Your task to perform on an android device: turn smart compose on in the gmail app Image 0: 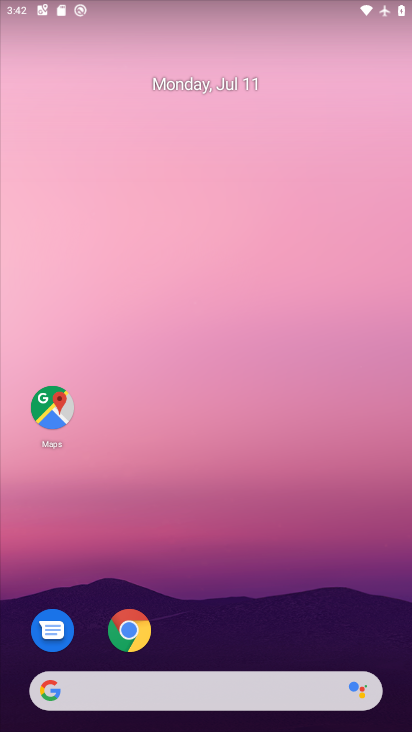
Step 0: drag from (310, 623) to (338, 120)
Your task to perform on an android device: turn smart compose on in the gmail app Image 1: 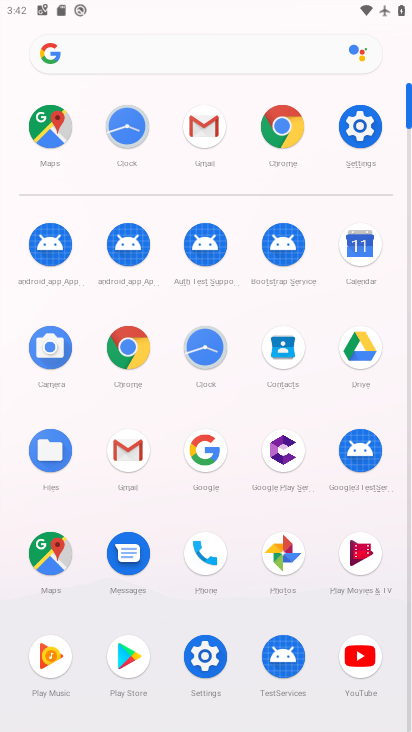
Step 1: click (191, 151)
Your task to perform on an android device: turn smart compose on in the gmail app Image 2: 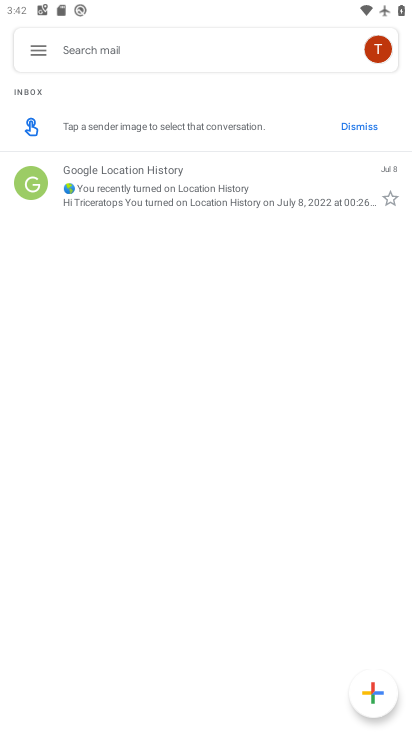
Step 2: click (36, 40)
Your task to perform on an android device: turn smart compose on in the gmail app Image 3: 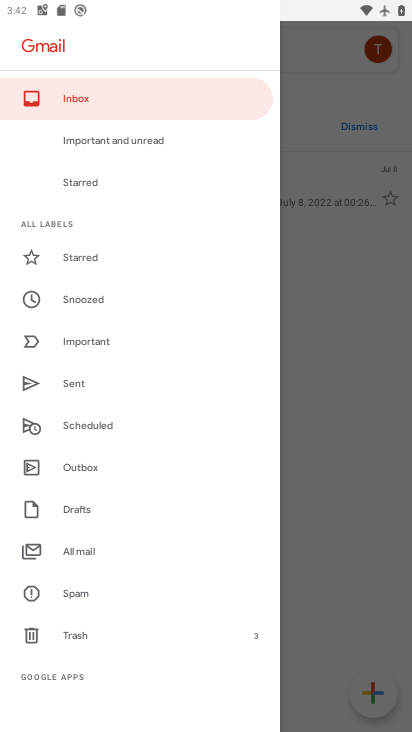
Step 3: drag from (121, 626) to (126, 160)
Your task to perform on an android device: turn smart compose on in the gmail app Image 4: 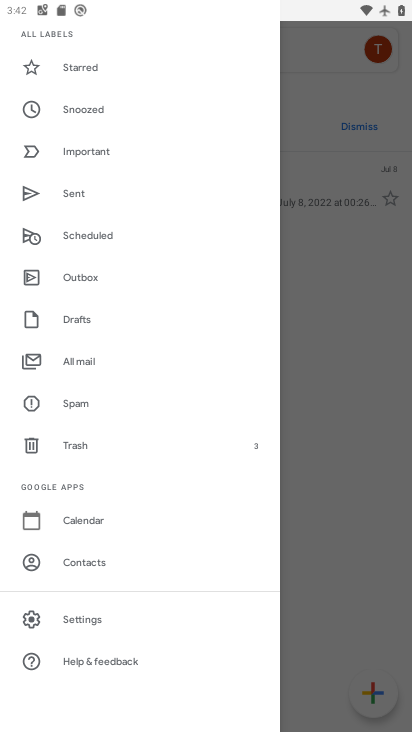
Step 4: click (166, 609)
Your task to perform on an android device: turn smart compose on in the gmail app Image 5: 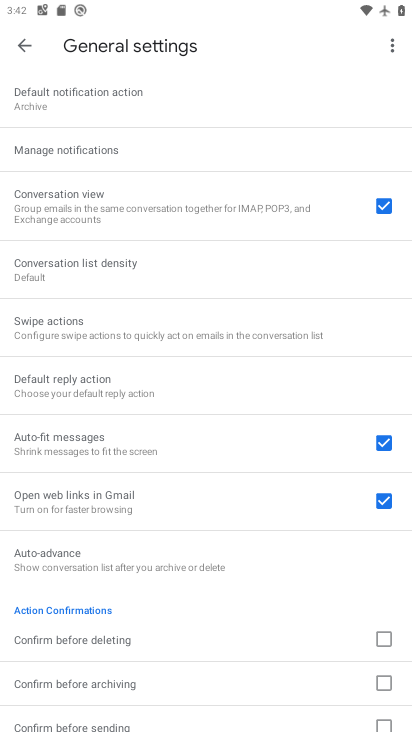
Step 5: task complete